Your task to perform on an android device: Go to Wikipedia Image 0: 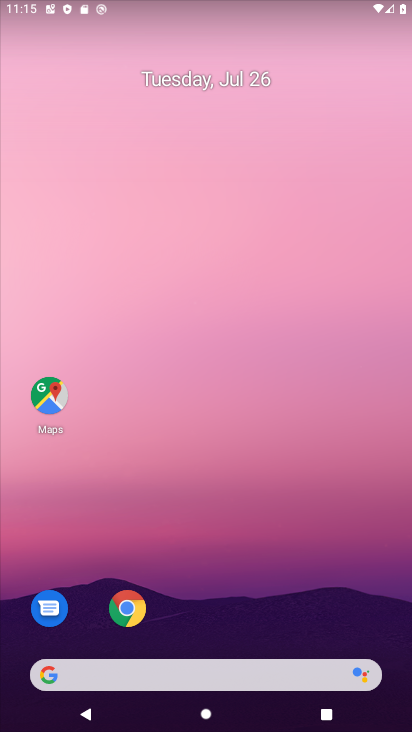
Step 0: click (124, 600)
Your task to perform on an android device: Go to Wikipedia Image 1: 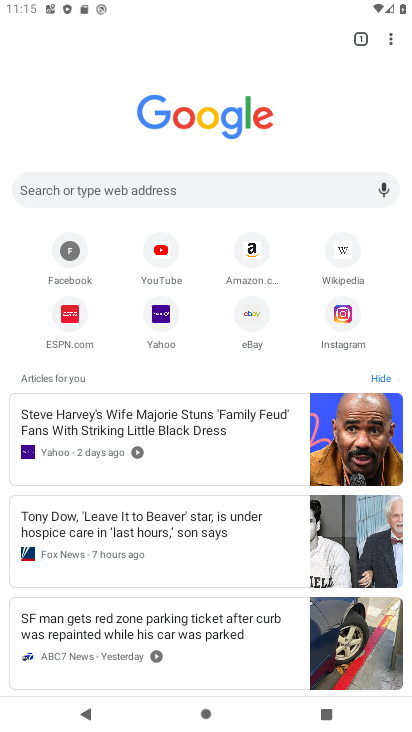
Step 1: click (341, 242)
Your task to perform on an android device: Go to Wikipedia Image 2: 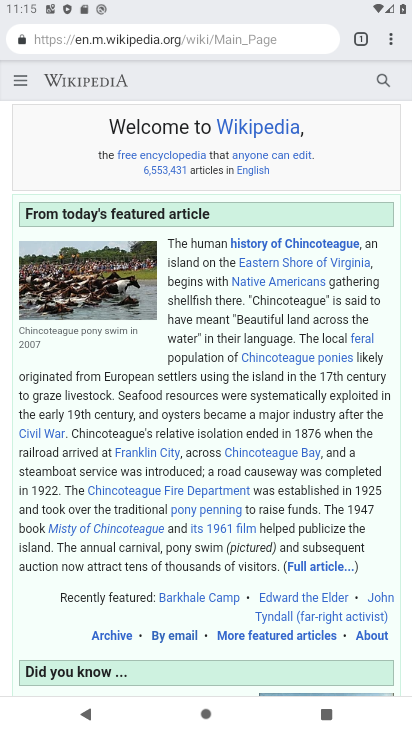
Step 2: task complete